Your task to perform on an android device: Search for Italian restaurants on Maps Image 0: 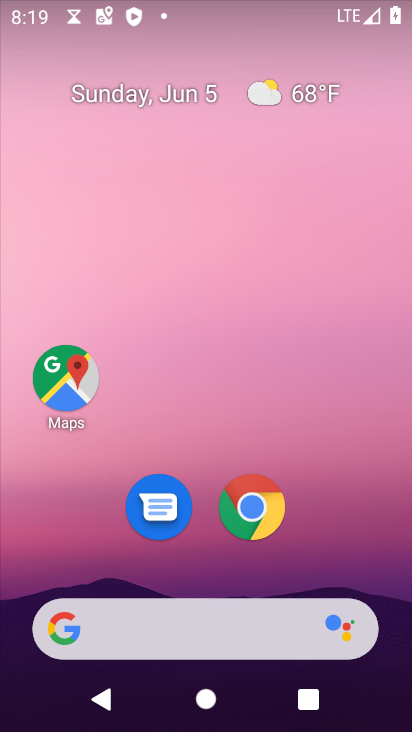
Step 0: click (252, 507)
Your task to perform on an android device: Search for Italian restaurants on Maps Image 1: 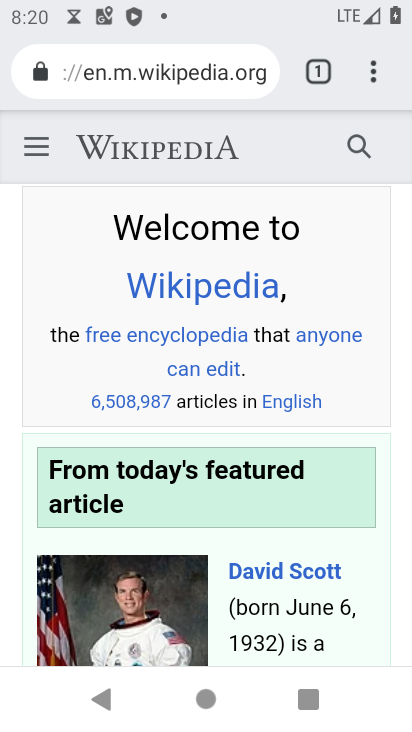
Step 1: click (197, 61)
Your task to perform on an android device: Search for Italian restaurants on Maps Image 2: 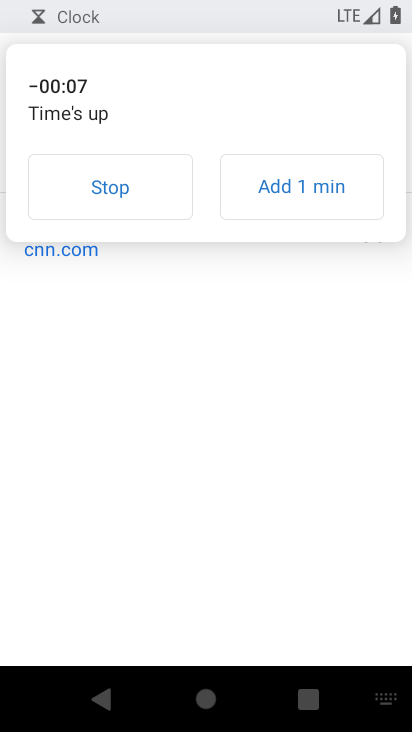
Step 2: type "italian restaurants"
Your task to perform on an android device: Search for Italian restaurants on Maps Image 3: 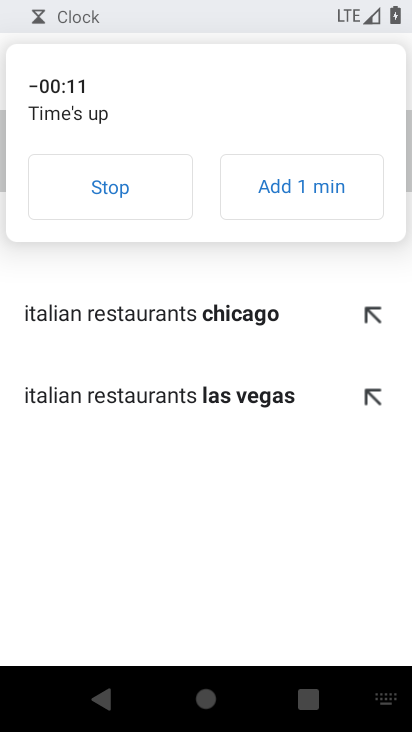
Step 3: click (118, 192)
Your task to perform on an android device: Search for Italian restaurants on Maps Image 4: 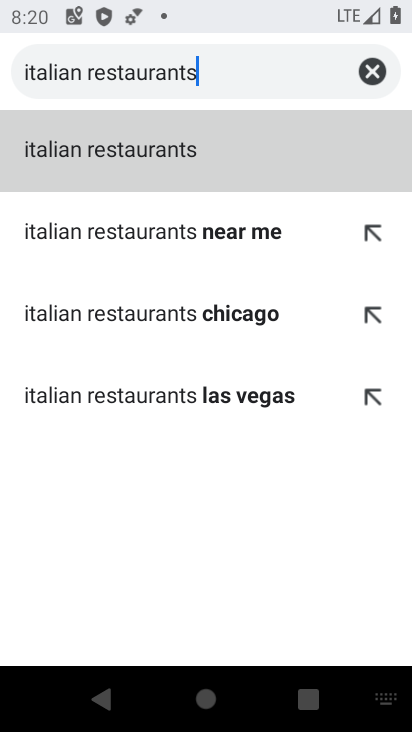
Step 4: click (147, 178)
Your task to perform on an android device: Search for Italian restaurants on Maps Image 5: 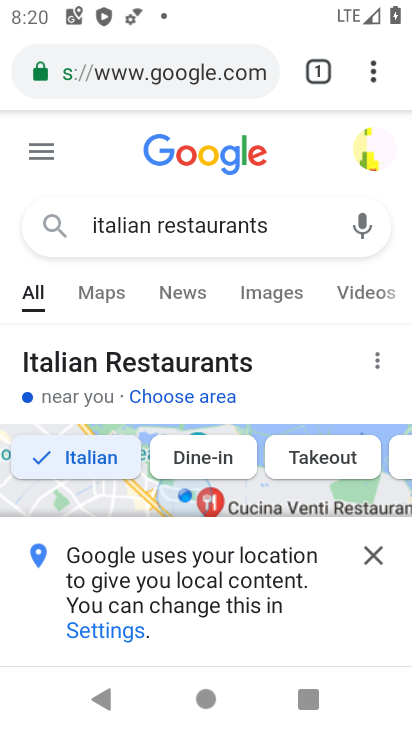
Step 5: click (365, 556)
Your task to perform on an android device: Search for Italian restaurants on Maps Image 6: 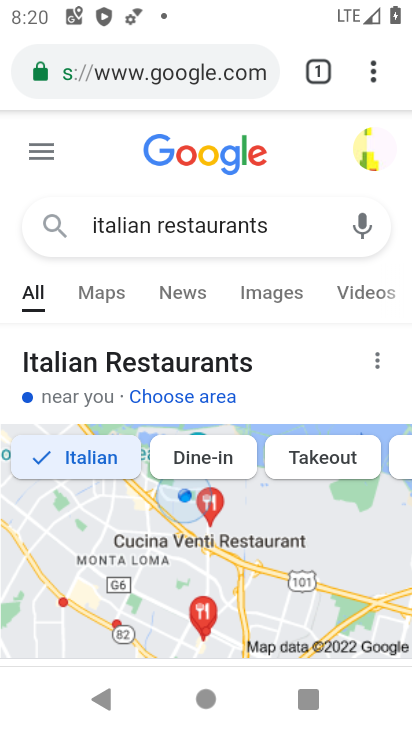
Step 6: task complete